Your task to perform on an android device: Go to calendar. Show me events next week Image 0: 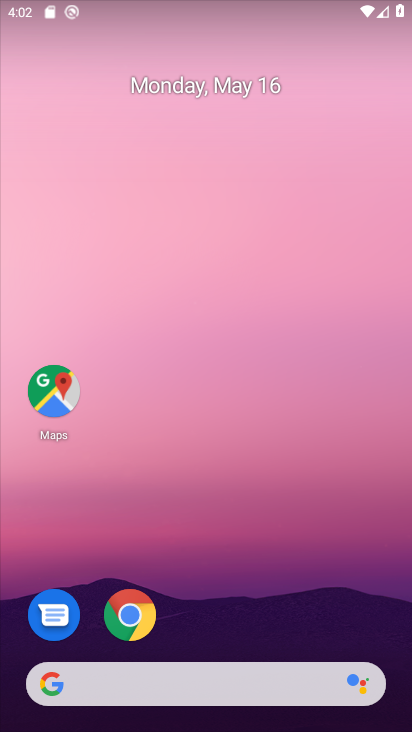
Step 0: drag from (214, 627) to (279, 67)
Your task to perform on an android device: Go to calendar. Show me events next week Image 1: 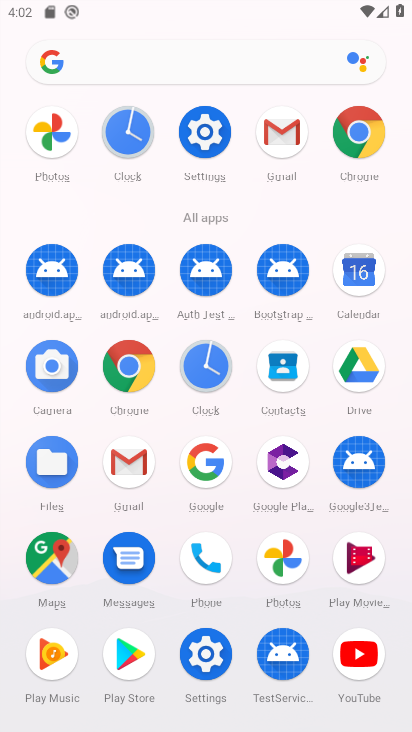
Step 1: click (355, 290)
Your task to perform on an android device: Go to calendar. Show me events next week Image 2: 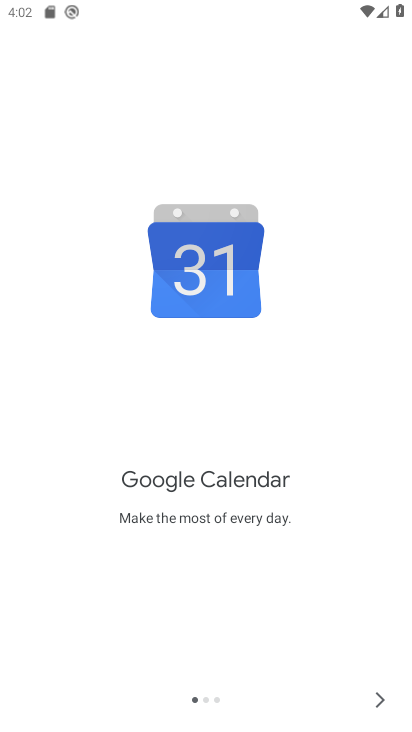
Step 2: click (382, 713)
Your task to perform on an android device: Go to calendar. Show me events next week Image 3: 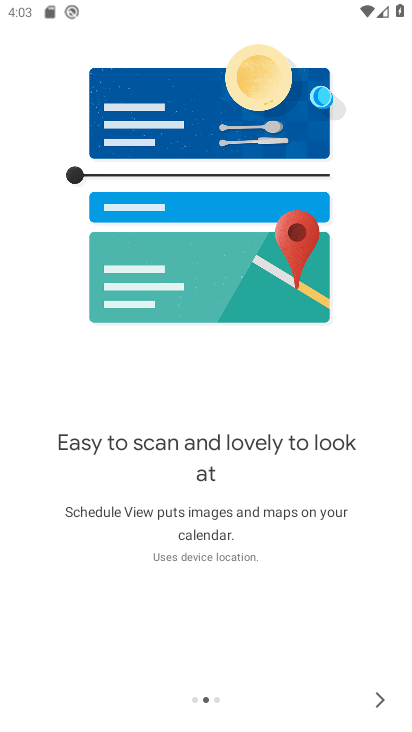
Step 3: click (369, 698)
Your task to perform on an android device: Go to calendar. Show me events next week Image 4: 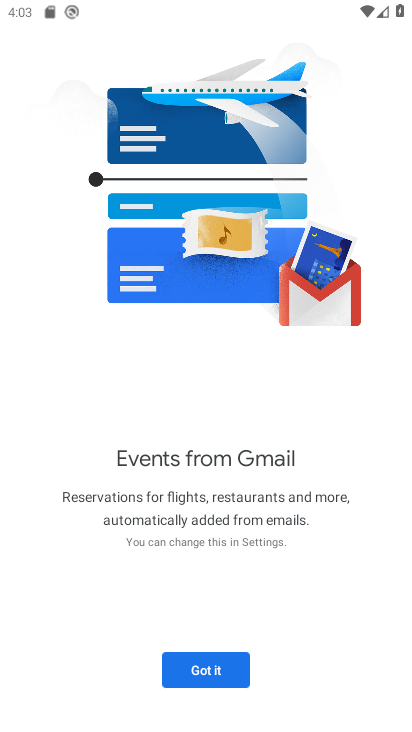
Step 4: click (204, 667)
Your task to perform on an android device: Go to calendar. Show me events next week Image 5: 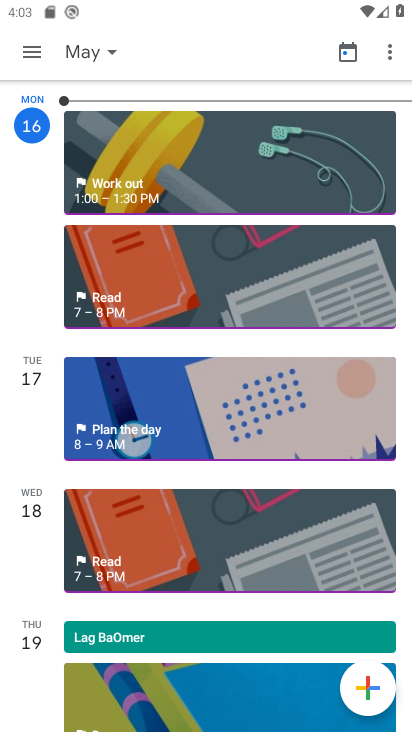
Step 5: click (35, 51)
Your task to perform on an android device: Go to calendar. Show me events next week Image 6: 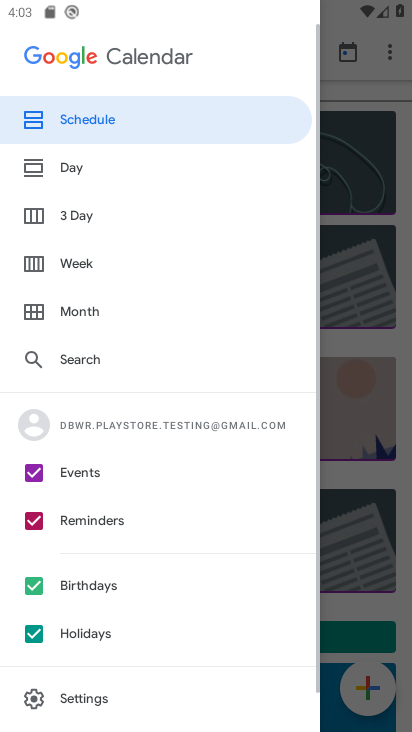
Step 6: click (81, 273)
Your task to perform on an android device: Go to calendar. Show me events next week Image 7: 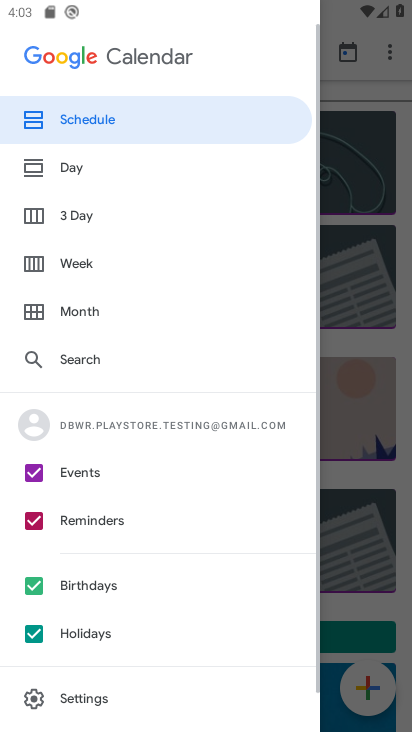
Step 7: click (72, 272)
Your task to perform on an android device: Go to calendar. Show me events next week Image 8: 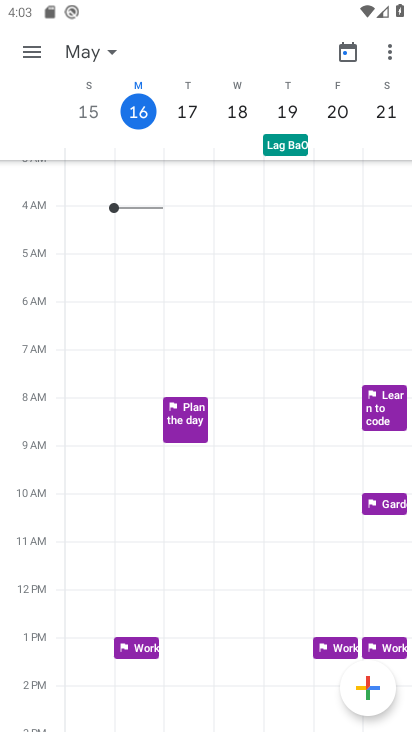
Step 8: click (86, 53)
Your task to perform on an android device: Go to calendar. Show me events next week Image 9: 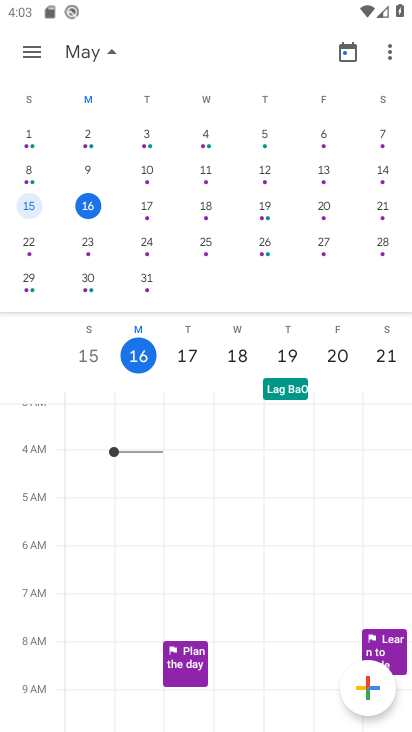
Step 9: click (25, 245)
Your task to perform on an android device: Go to calendar. Show me events next week Image 10: 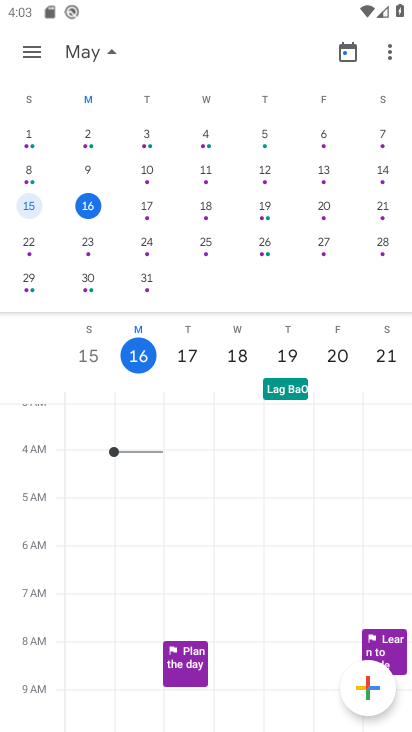
Step 10: click (25, 245)
Your task to perform on an android device: Go to calendar. Show me events next week Image 11: 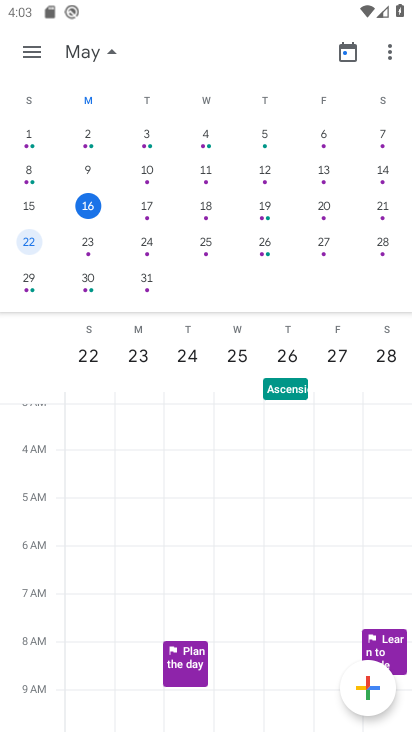
Step 11: task complete